Your task to perform on an android device: turn on translation in the chrome app Image 0: 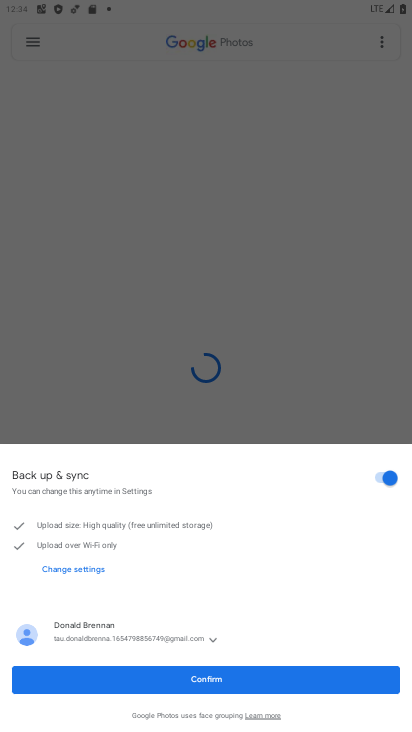
Step 0: press home button
Your task to perform on an android device: turn on translation in the chrome app Image 1: 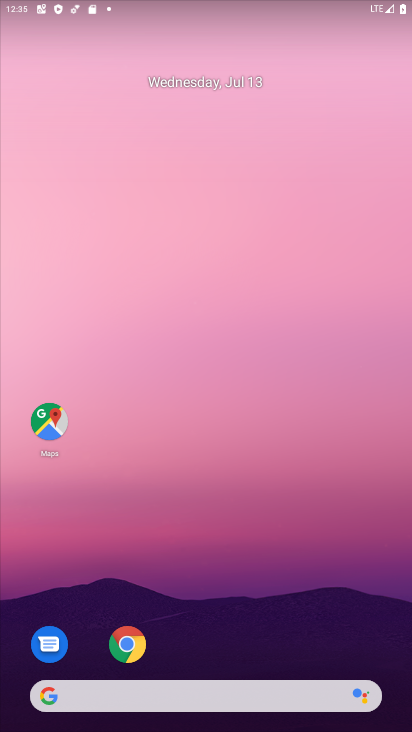
Step 1: click (118, 642)
Your task to perform on an android device: turn on translation in the chrome app Image 2: 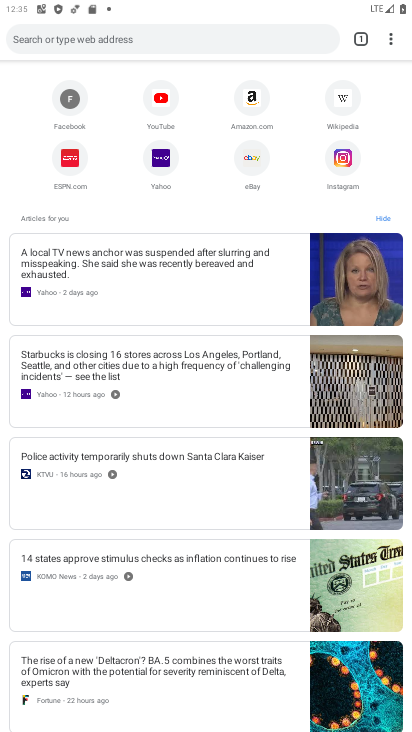
Step 2: click (392, 38)
Your task to perform on an android device: turn on translation in the chrome app Image 3: 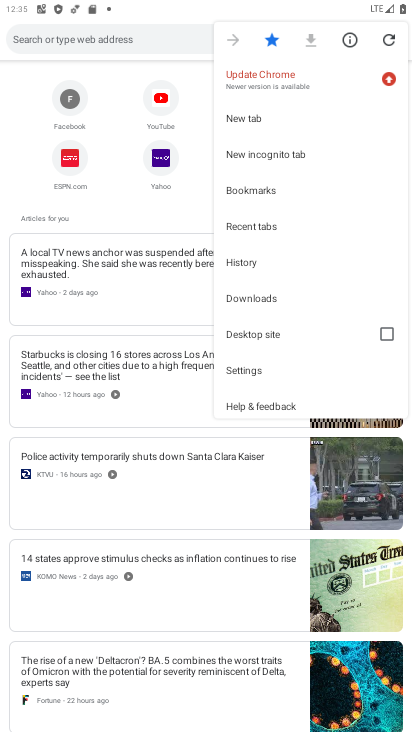
Step 3: click (262, 373)
Your task to perform on an android device: turn on translation in the chrome app Image 4: 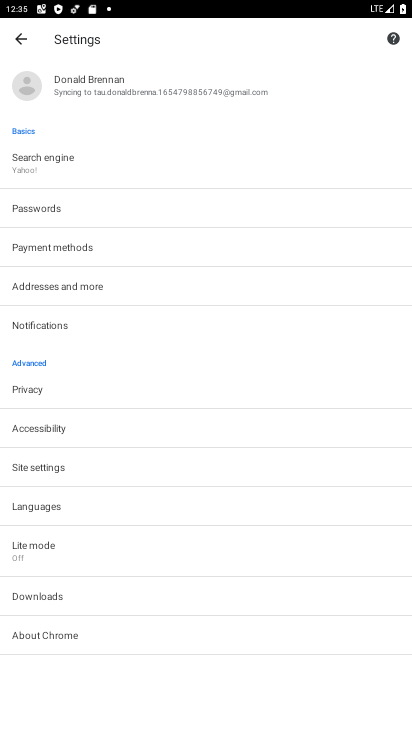
Step 4: click (52, 510)
Your task to perform on an android device: turn on translation in the chrome app Image 5: 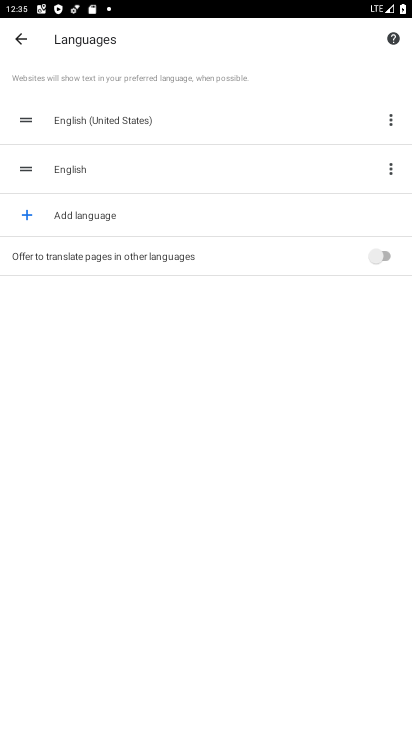
Step 5: click (390, 259)
Your task to perform on an android device: turn on translation in the chrome app Image 6: 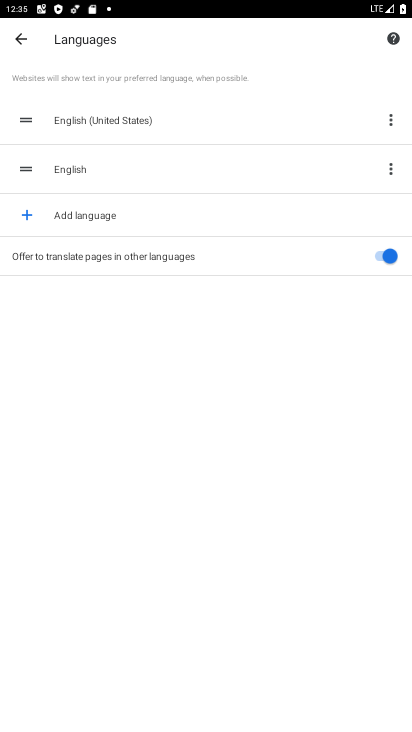
Step 6: task complete